Your task to perform on an android device: add a contact in the contacts app Image 0: 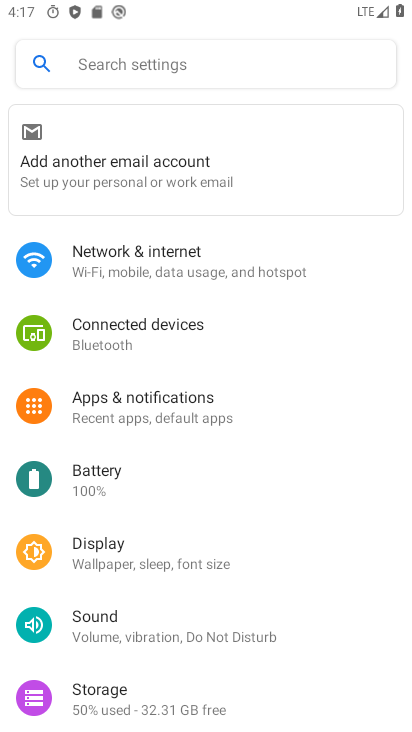
Step 0: press home button
Your task to perform on an android device: add a contact in the contacts app Image 1: 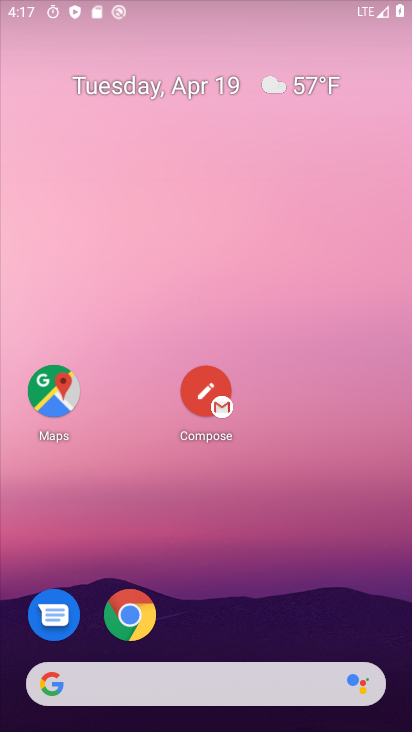
Step 1: drag from (248, 676) to (291, 151)
Your task to perform on an android device: add a contact in the contacts app Image 2: 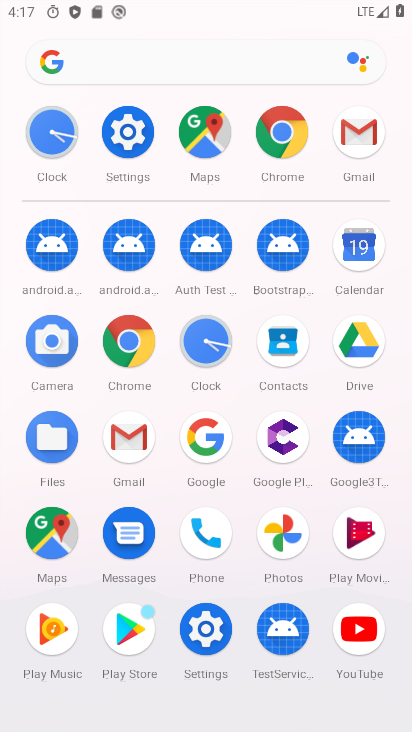
Step 2: click (281, 351)
Your task to perform on an android device: add a contact in the contacts app Image 3: 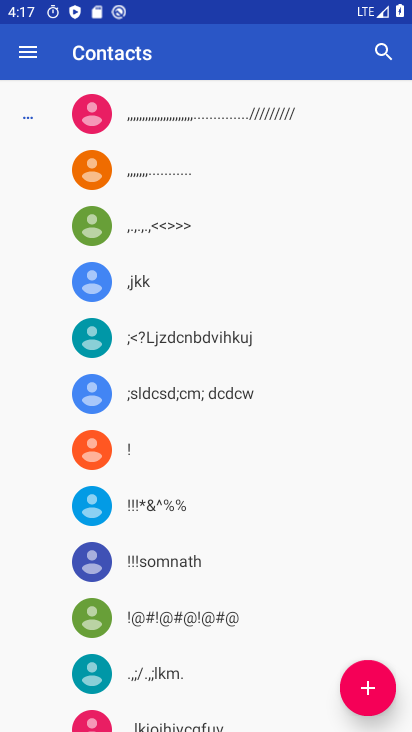
Step 3: click (376, 696)
Your task to perform on an android device: add a contact in the contacts app Image 4: 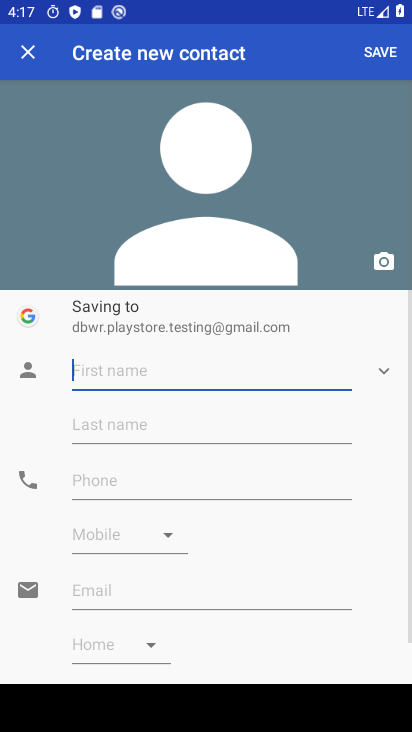
Step 4: click (241, 362)
Your task to perform on an android device: add a contact in the contacts app Image 5: 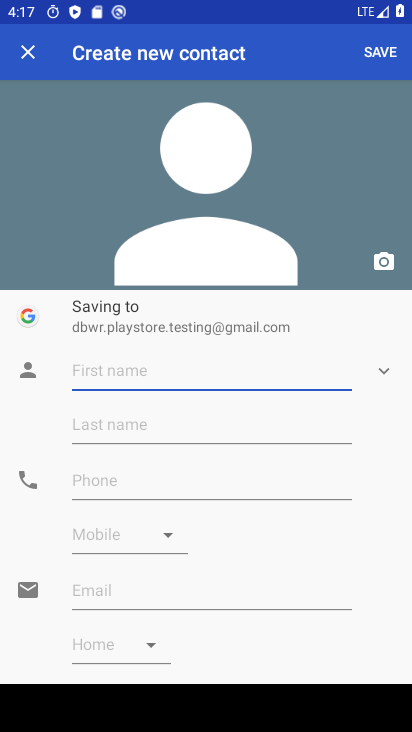
Step 5: type "usha 3"
Your task to perform on an android device: add a contact in the contacts app Image 6: 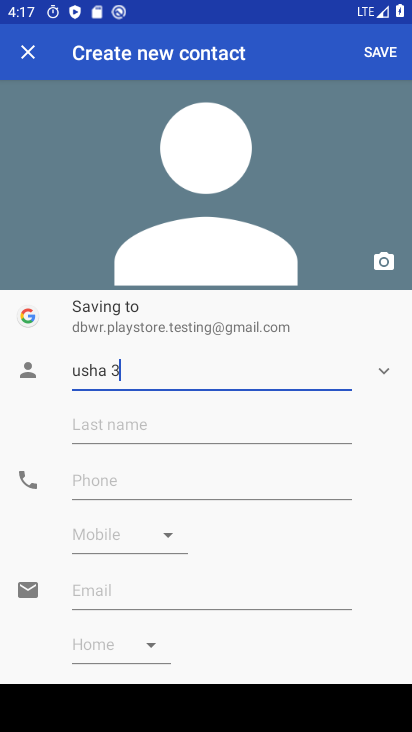
Step 6: click (209, 481)
Your task to perform on an android device: add a contact in the contacts app Image 7: 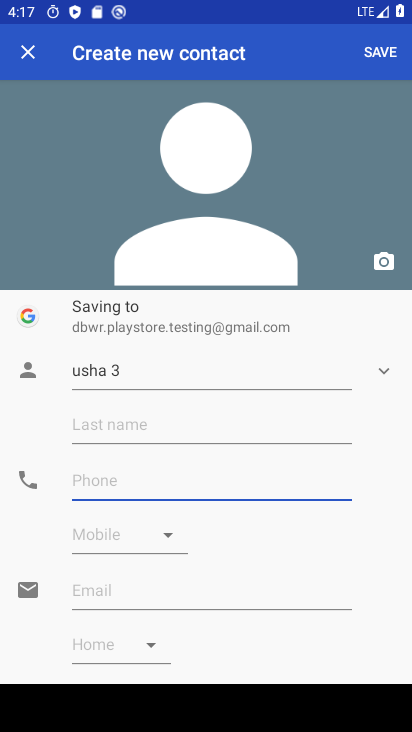
Step 7: type "98979888987"
Your task to perform on an android device: add a contact in the contacts app Image 8: 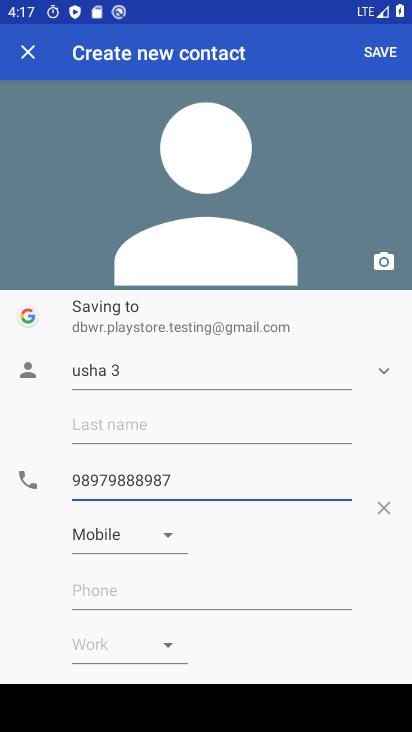
Step 8: click (391, 55)
Your task to perform on an android device: add a contact in the contacts app Image 9: 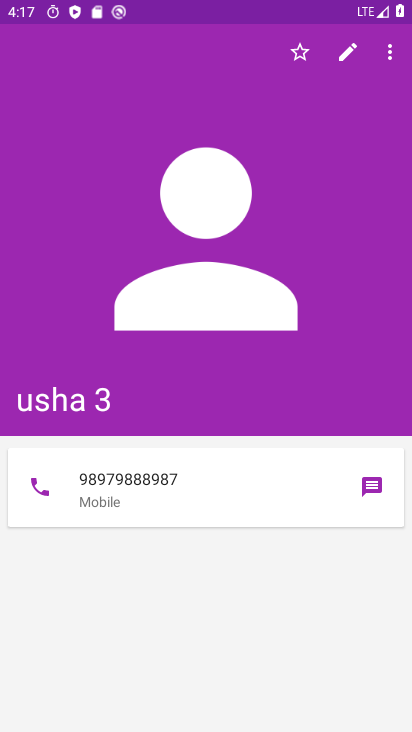
Step 9: task complete